Your task to perform on an android device: Open calendar and show me the first week of next month Image 0: 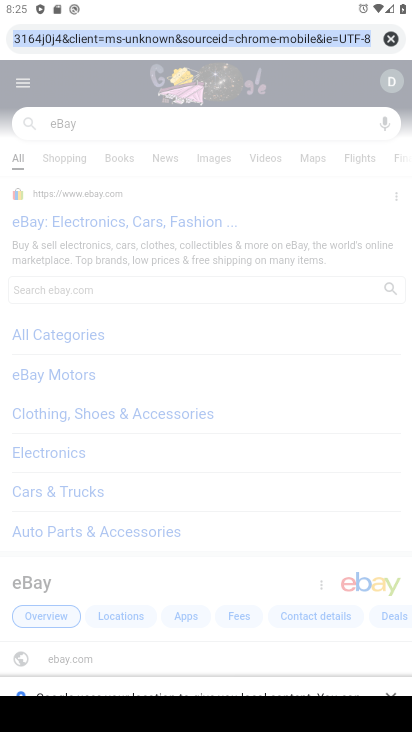
Step 0: press home button
Your task to perform on an android device: Open calendar and show me the first week of next month Image 1: 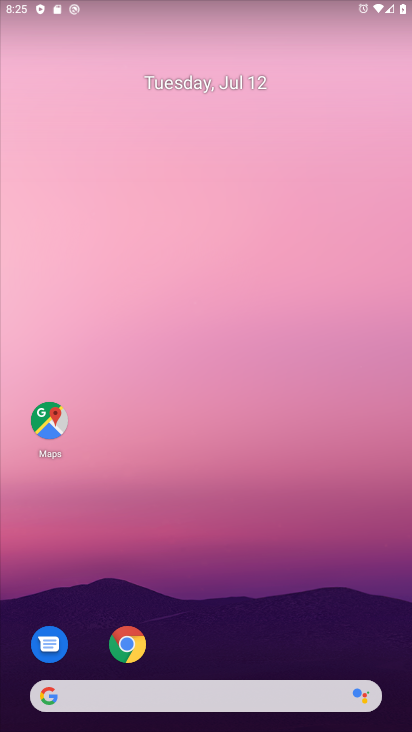
Step 1: drag from (148, 534) to (322, 364)
Your task to perform on an android device: Open calendar and show me the first week of next month Image 2: 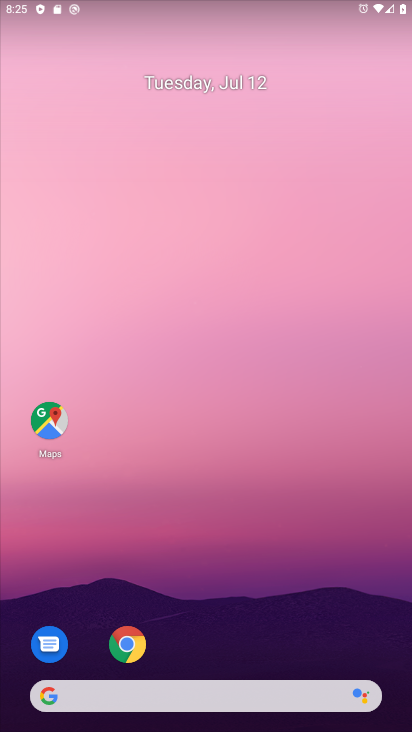
Step 2: drag from (112, 537) to (259, 63)
Your task to perform on an android device: Open calendar and show me the first week of next month Image 3: 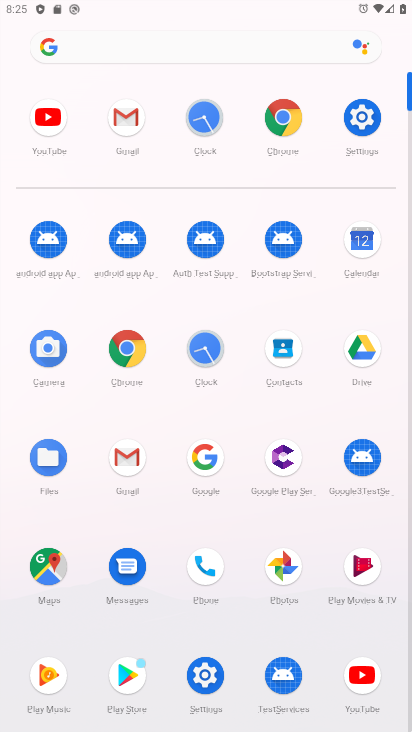
Step 3: click (360, 238)
Your task to perform on an android device: Open calendar and show me the first week of next month Image 4: 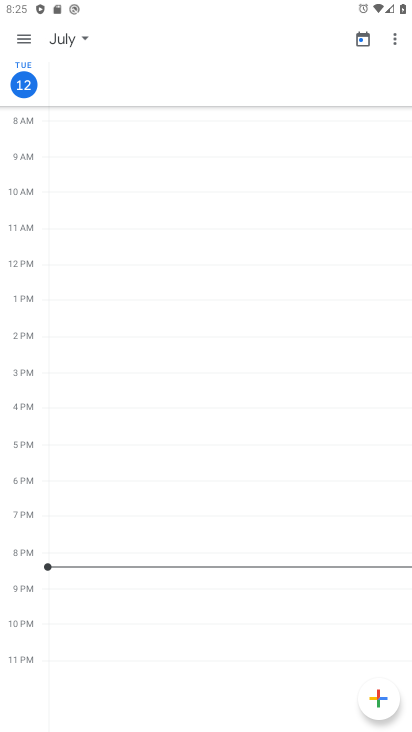
Step 4: click (22, 26)
Your task to perform on an android device: Open calendar and show me the first week of next month Image 5: 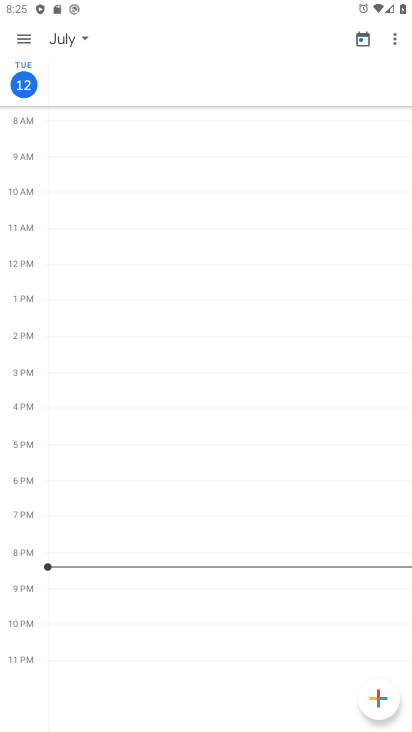
Step 5: click (20, 29)
Your task to perform on an android device: Open calendar and show me the first week of next month Image 6: 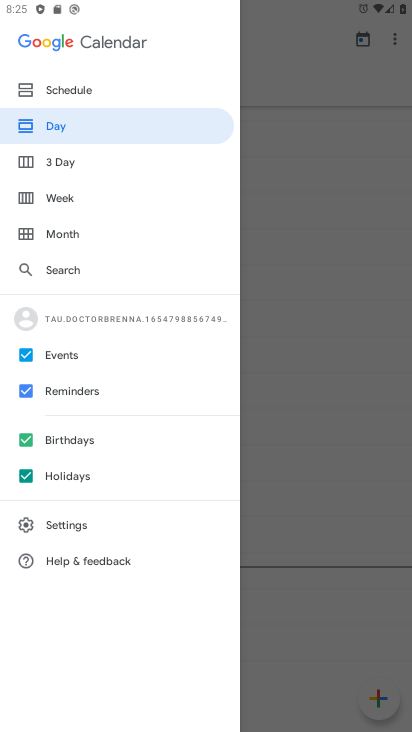
Step 6: click (66, 241)
Your task to perform on an android device: Open calendar and show me the first week of next month Image 7: 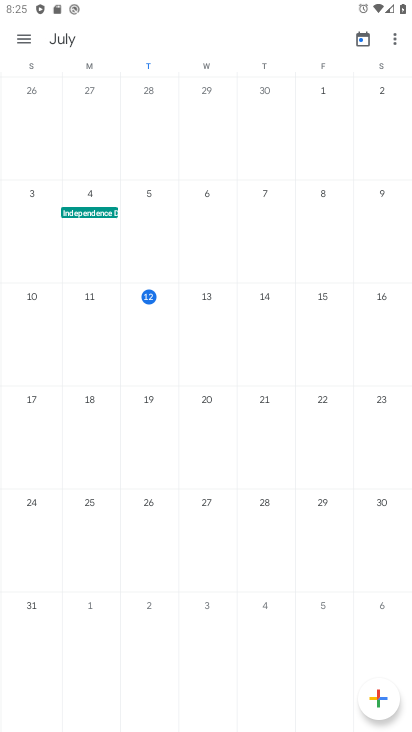
Step 7: drag from (401, 321) to (18, 317)
Your task to perform on an android device: Open calendar and show me the first week of next month Image 8: 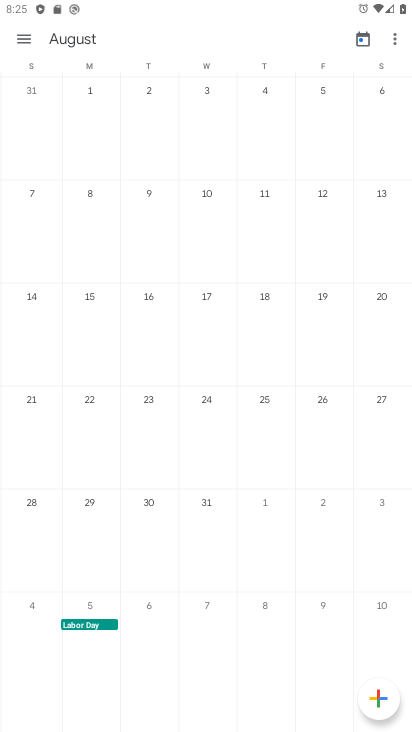
Step 8: click (81, 102)
Your task to perform on an android device: Open calendar and show me the first week of next month Image 9: 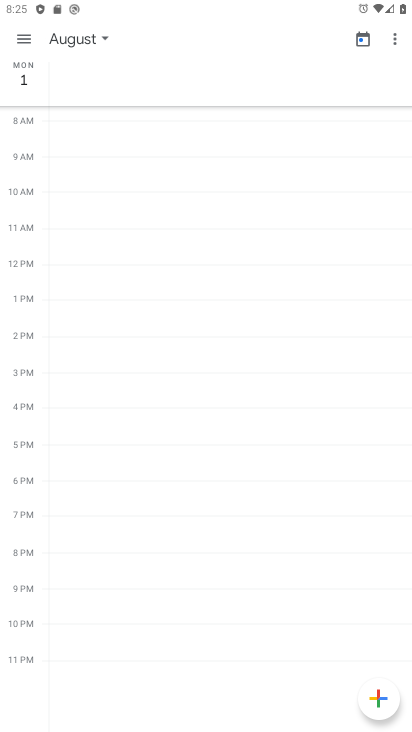
Step 9: task complete